Your task to perform on an android device: Open notification settings Image 0: 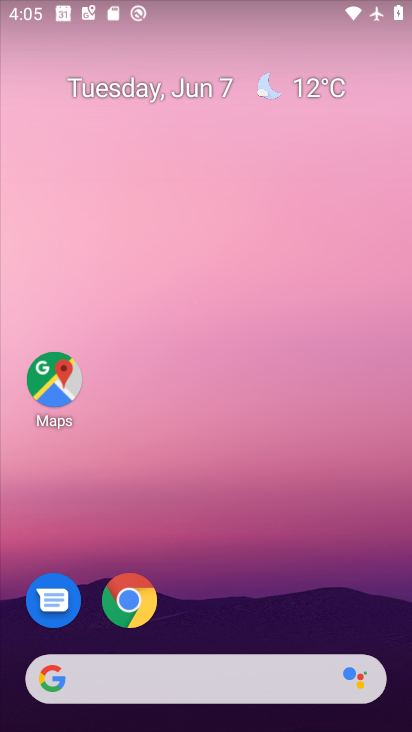
Step 0: drag from (290, 560) to (261, 131)
Your task to perform on an android device: Open notification settings Image 1: 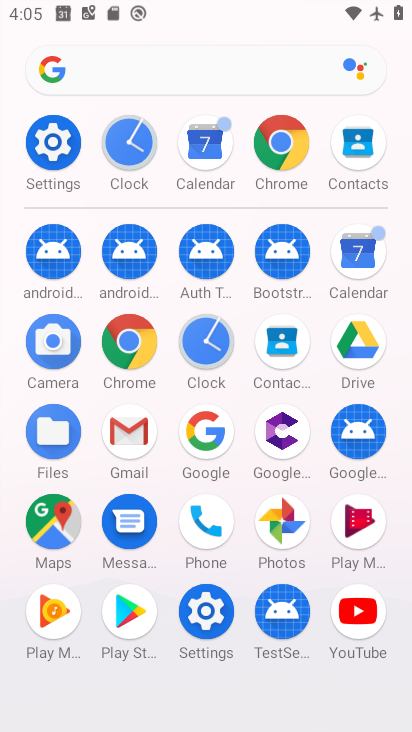
Step 1: click (44, 130)
Your task to perform on an android device: Open notification settings Image 2: 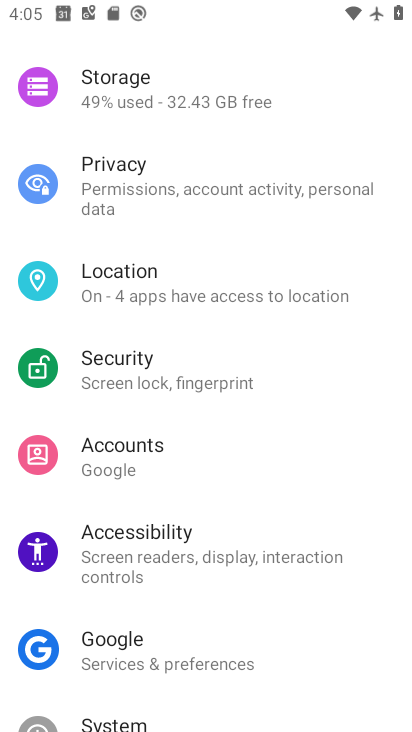
Step 2: drag from (264, 116) to (191, 560)
Your task to perform on an android device: Open notification settings Image 3: 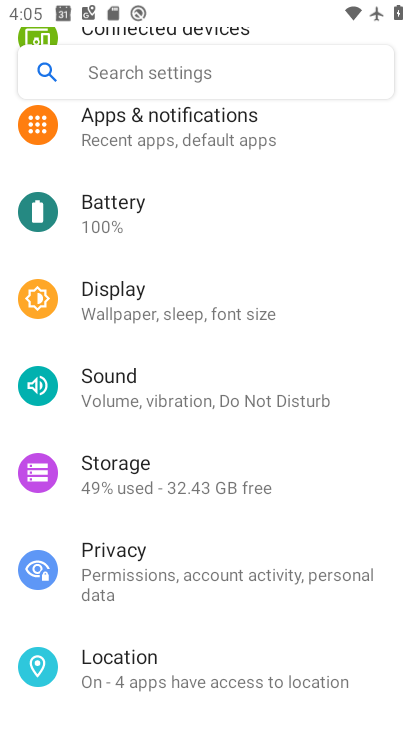
Step 3: drag from (197, 159) to (202, 538)
Your task to perform on an android device: Open notification settings Image 4: 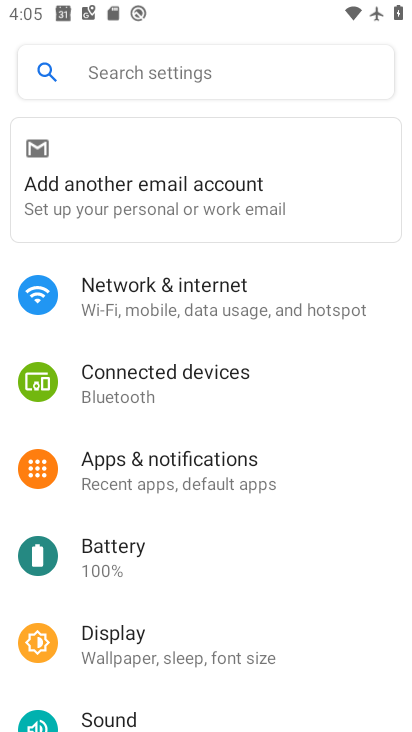
Step 4: click (192, 475)
Your task to perform on an android device: Open notification settings Image 5: 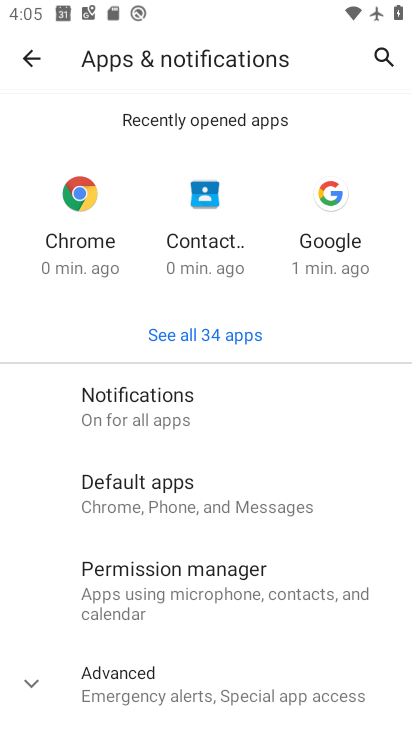
Step 5: click (170, 413)
Your task to perform on an android device: Open notification settings Image 6: 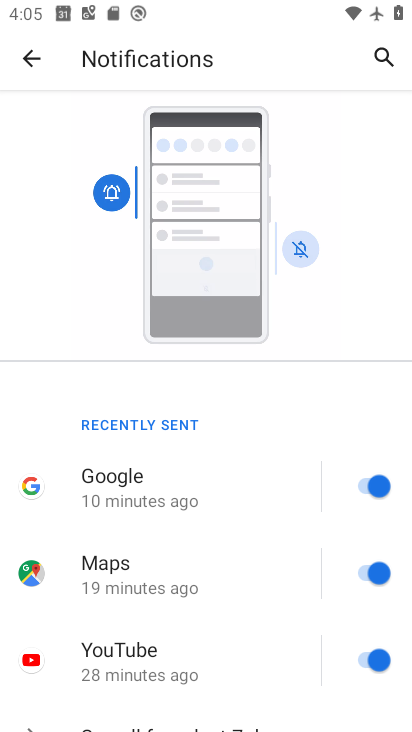
Step 6: drag from (201, 583) to (197, 121)
Your task to perform on an android device: Open notification settings Image 7: 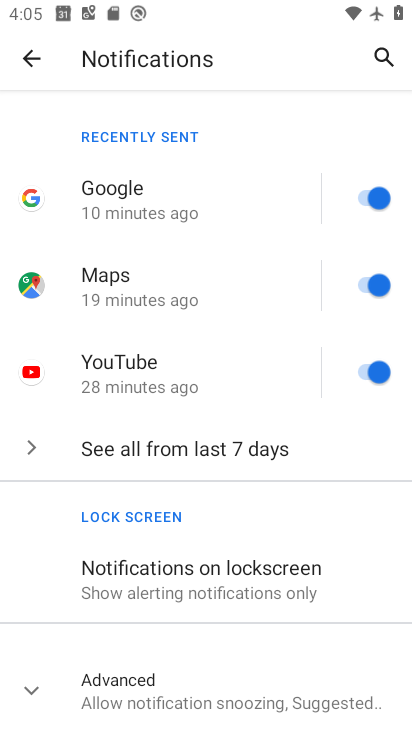
Step 7: drag from (158, 539) to (255, 189)
Your task to perform on an android device: Open notification settings Image 8: 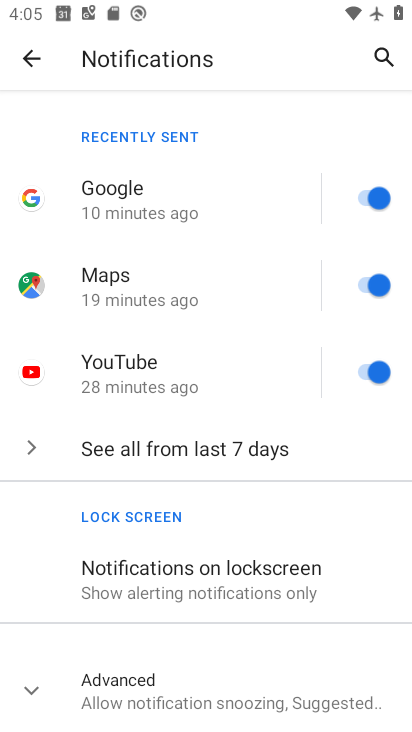
Step 8: click (132, 694)
Your task to perform on an android device: Open notification settings Image 9: 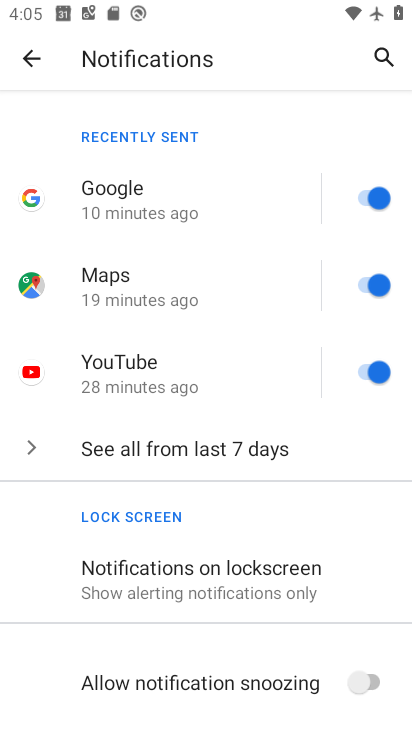
Step 9: task complete